Your task to perform on an android device: Show me the alarms in the clock app Image 0: 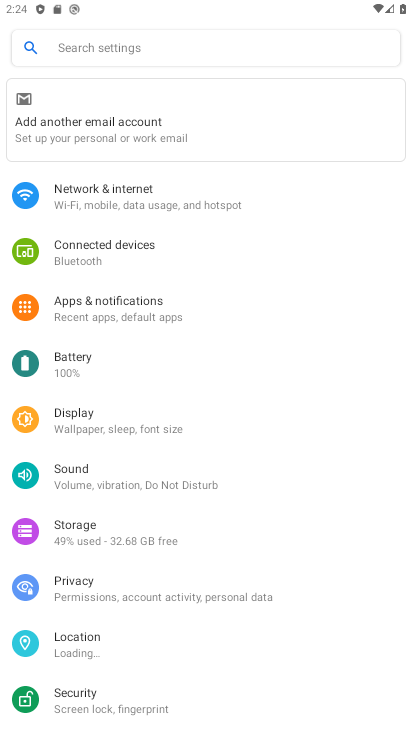
Step 0: press home button
Your task to perform on an android device: Show me the alarms in the clock app Image 1: 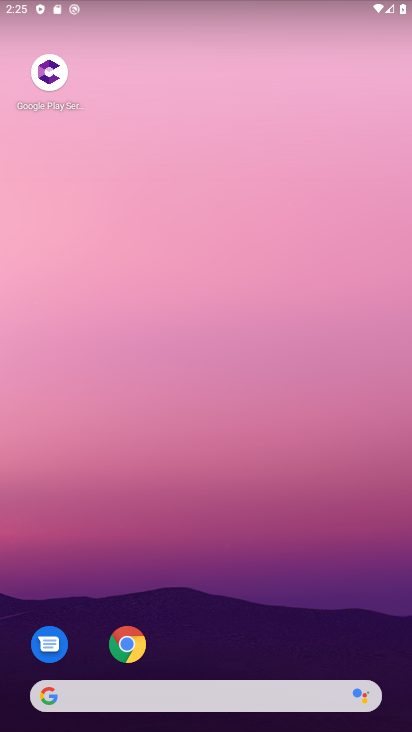
Step 1: drag from (251, 672) to (257, 278)
Your task to perform on an android device: Show me the alarms in the clock app Image 2: 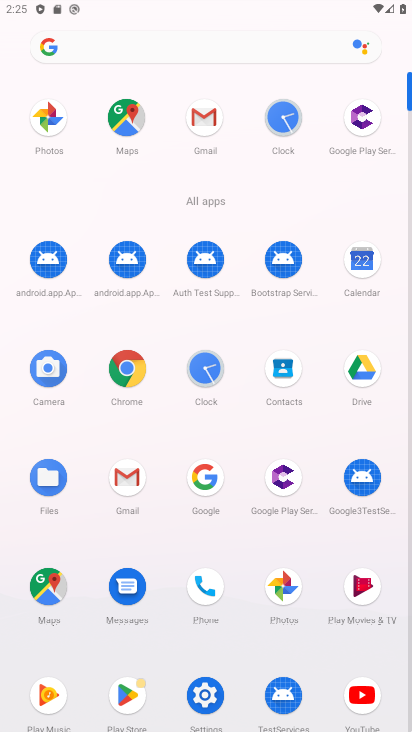
Step 2: click (200, 365)
Your task to perform on an android device: Show me the alarms in the clock app Image 3: 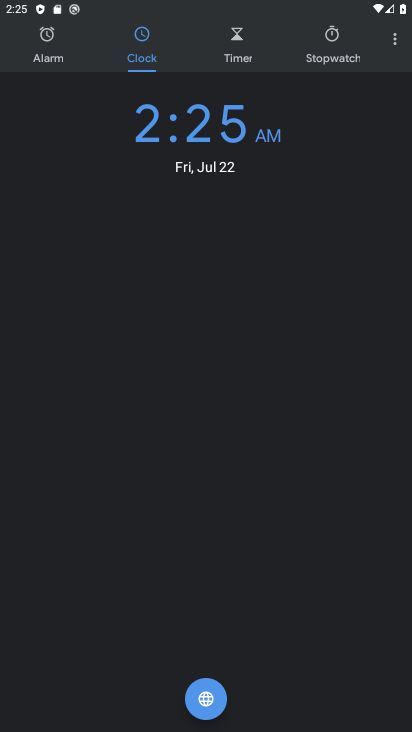
Step 3: click (42, 50)
Your task to perform on an android device: Show me the alarms in the clock app Image 4: 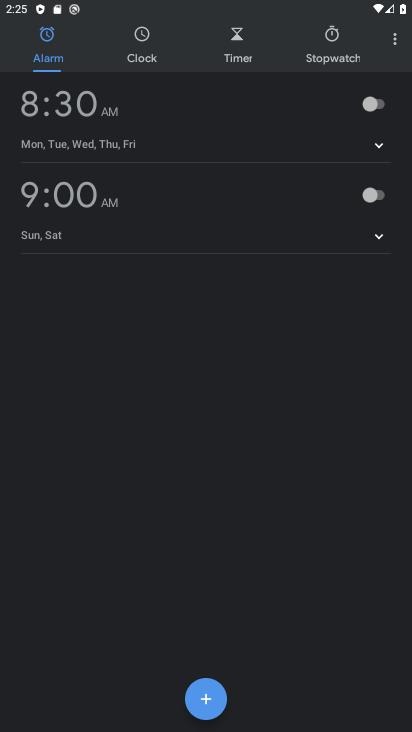
Step 4: task complete